Your task to perform on an android device: Show me the alarms in the clock app Image 0: 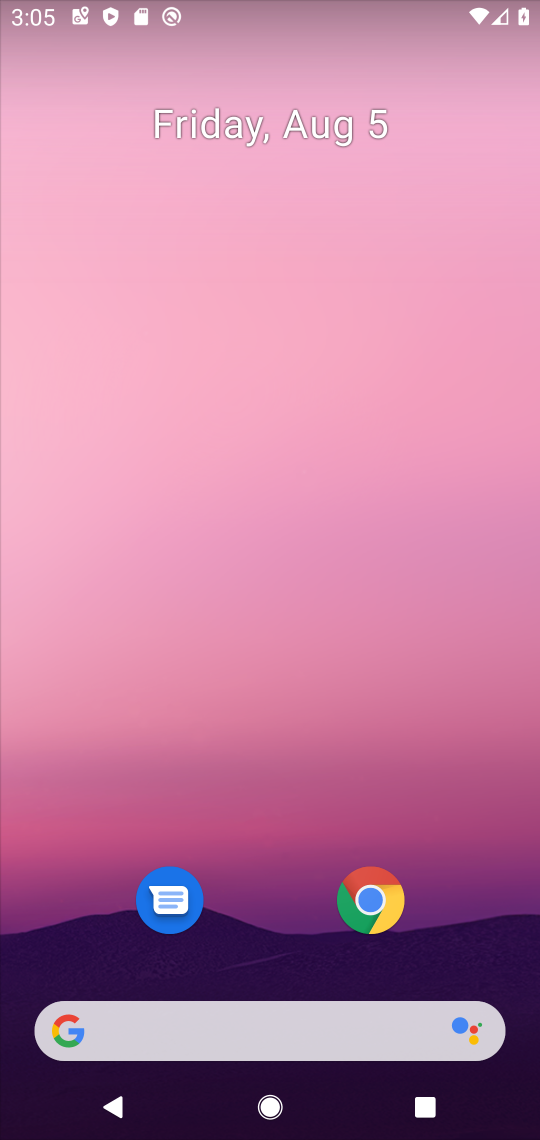
Step 0: drag from (268, 992) to (402, 159)
Your task to perform on an android device: Show me the alarms in the clock app Image 1: 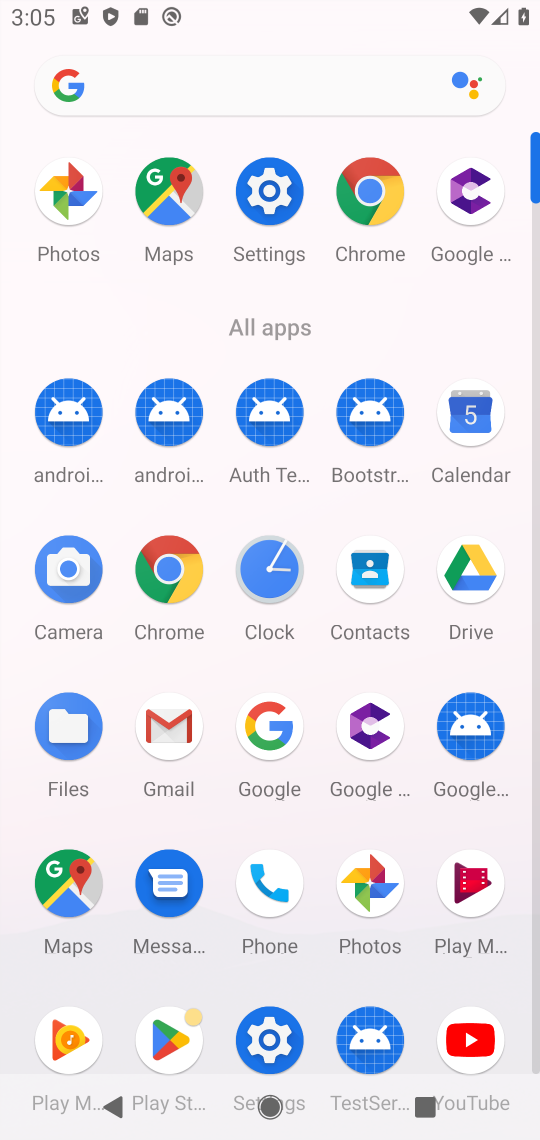
Step 1: click (278, 582)
Your task to perform on an android device: Show me the alarms in the clock app Image 2: 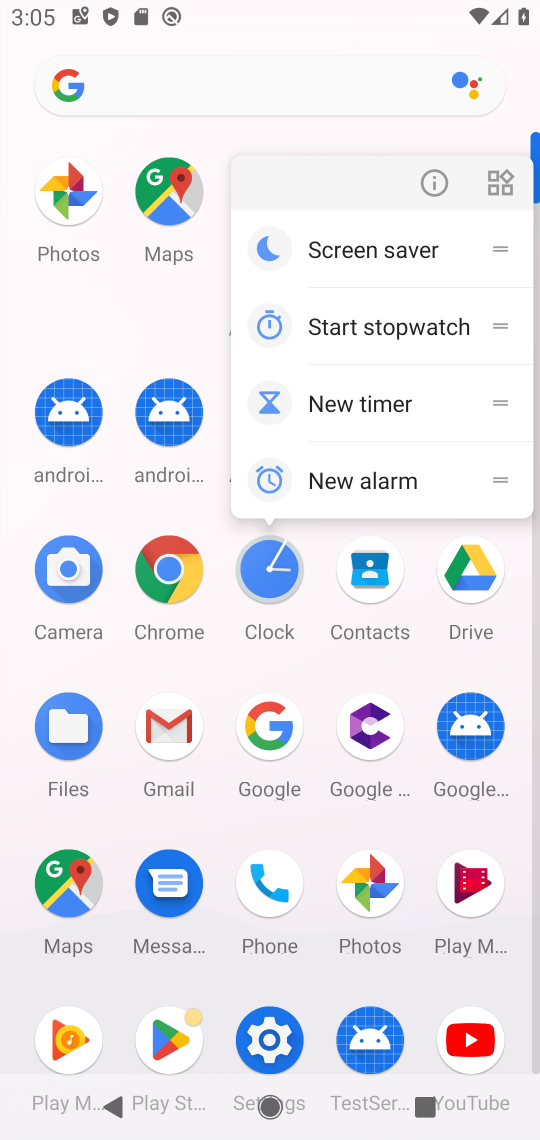
Step 2: click (263, 563)
Your task to perform on an android device: Show me the alarms in the clock app Image 3: 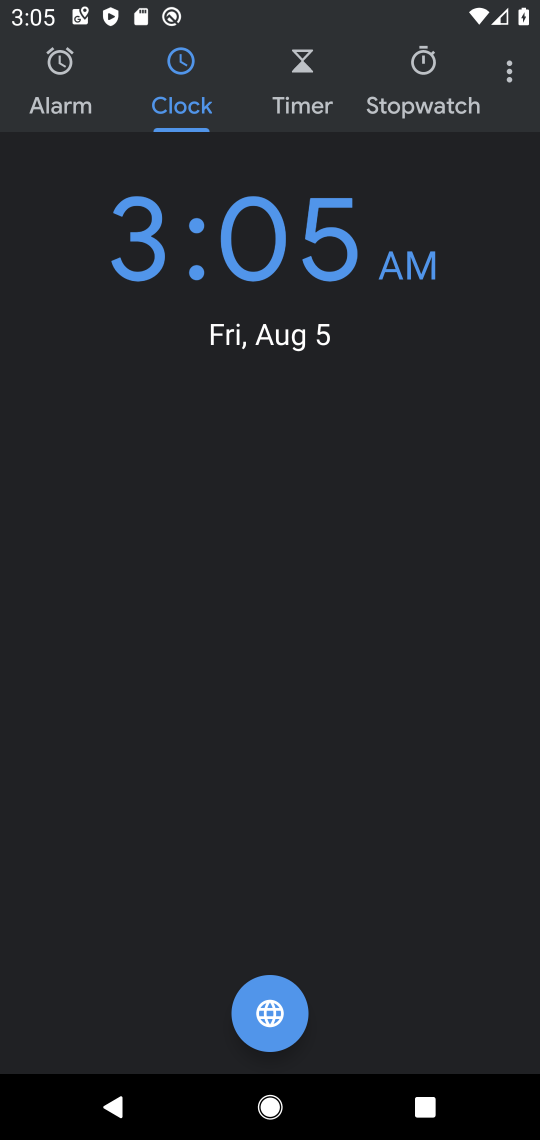
Step 3: click (80, 112)
Your task to perform on an android device: Show me the alarms in the clock app Image 4: 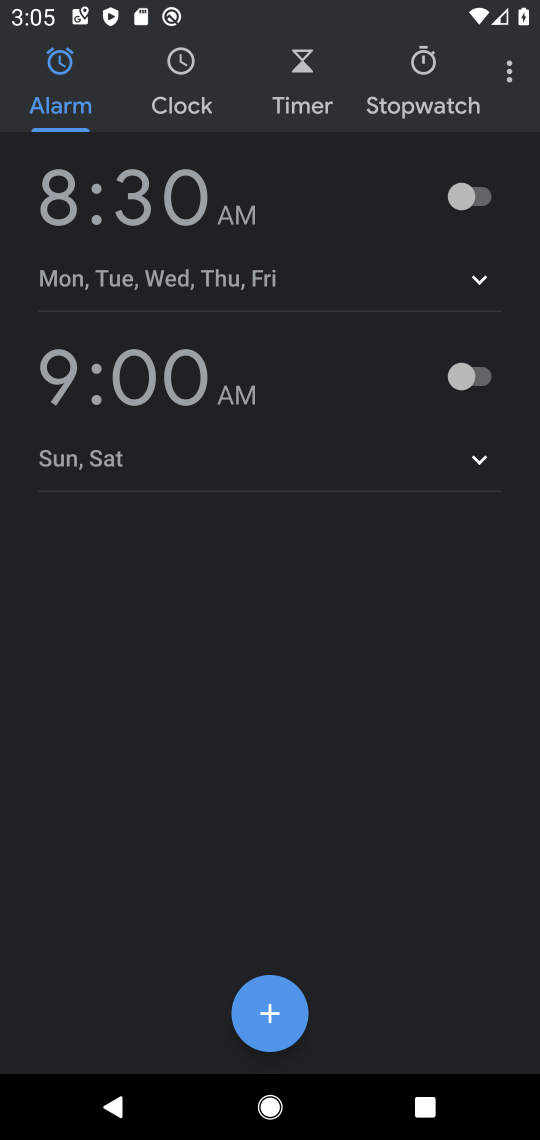
Step 4: task complete